Your task to perform on an android device: Go to ESPN.com Image 0: 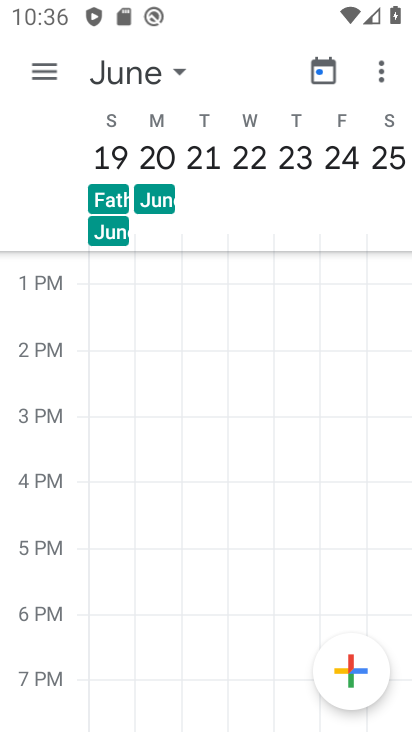
Step 0: press home button
Your task to perform on an android device: Go to ESPN.com Image 1: 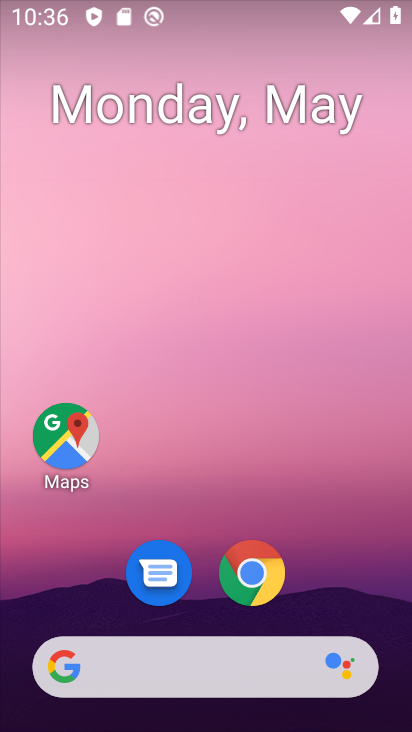
Step 1: click (249, 579)
Your task to perform on an android device: Go to ESPN.com Image 2: 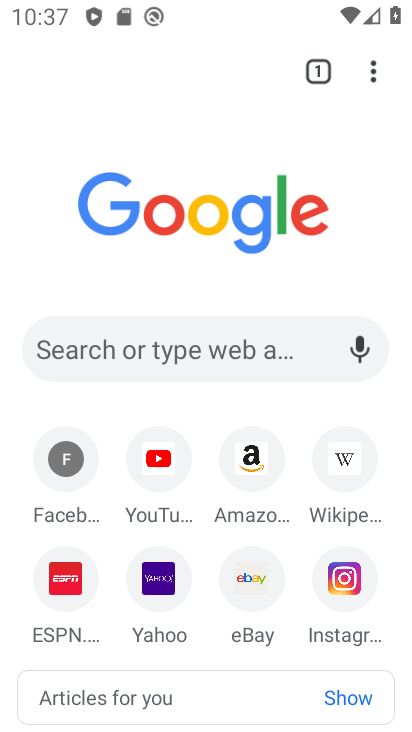
Step 2: click (57, 587)
Your task to perform on an android device: Go to ESPN.com Image 3: 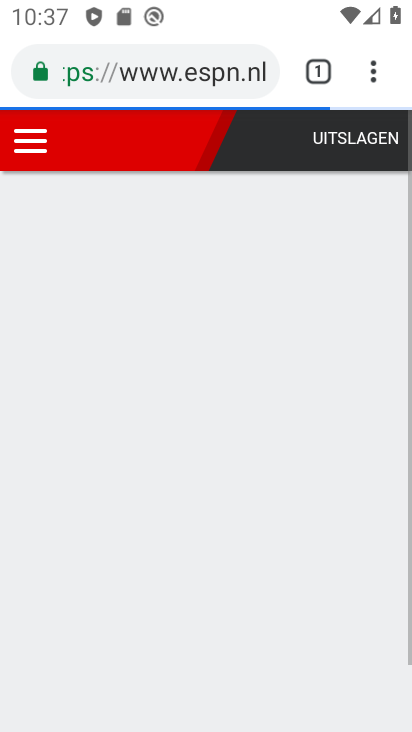
Step 3: task complete